Your task to perform on an android device: turn off priority inbox in the gmail app Image 0: 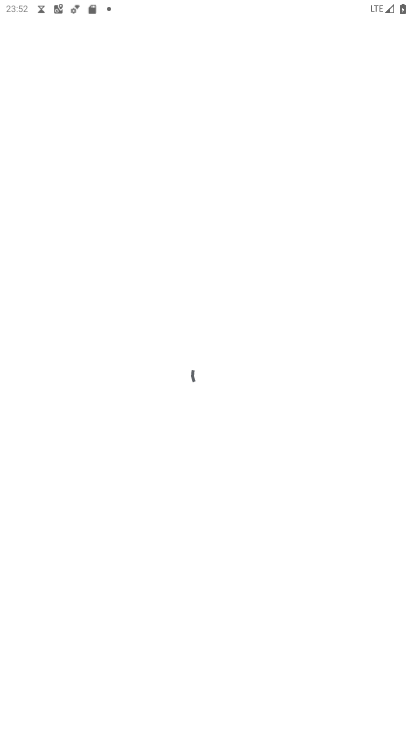
Step 0: press home button
Your task to perform on an android device: turn off priority inbox in the gmail app Image 1: 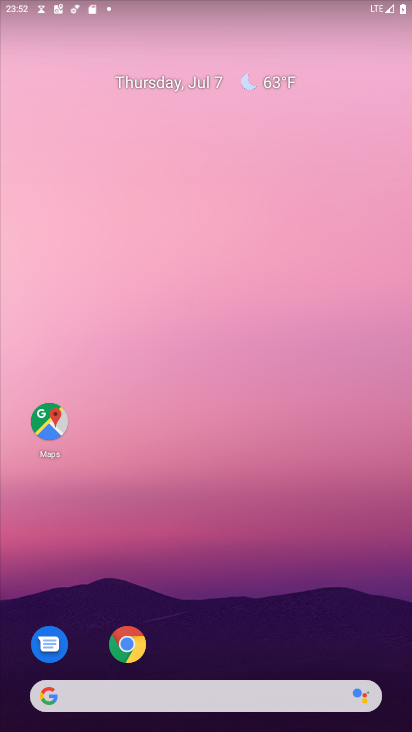
Step 1: drag from (258, 721) to (226, 171)
Your task to perform on an android device: turn off priority inbox in the gmail app Image 2: 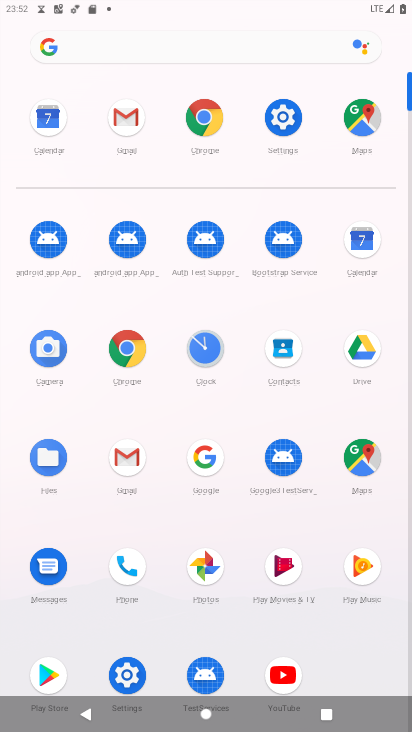
Step 2: click (127, 455)
Your task to perform on an android device: turn off priority inbox in the gmail app Image 3: 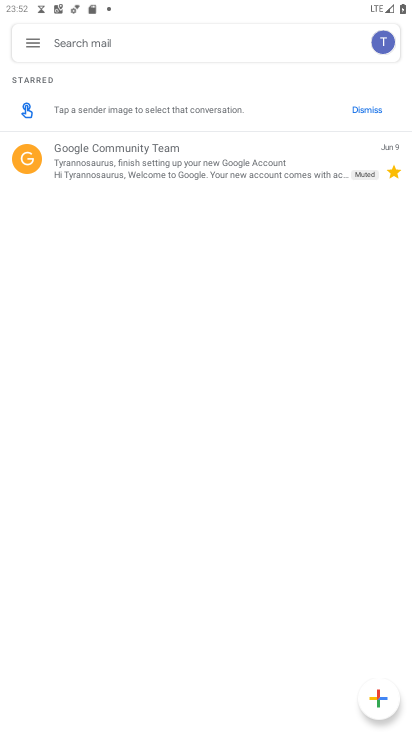
Step 3: click (27, 39)
Your task to perform on an android device: turn off priority inbox in the gmail app Image 4: 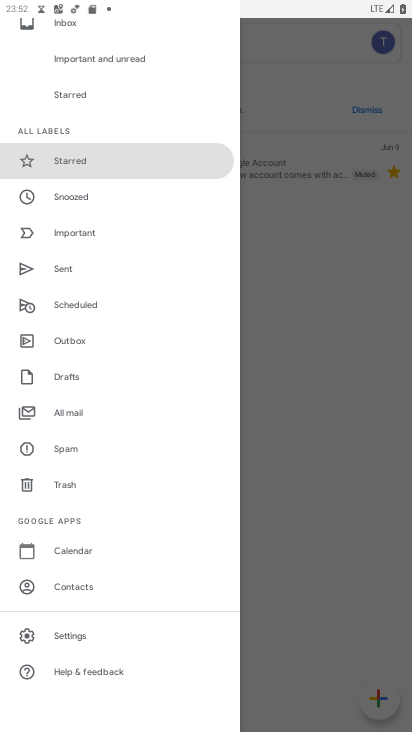
Step 4: click (75, 632)
Your task to perform on an android device: turn off priority inbox in the gmail app Image 5: 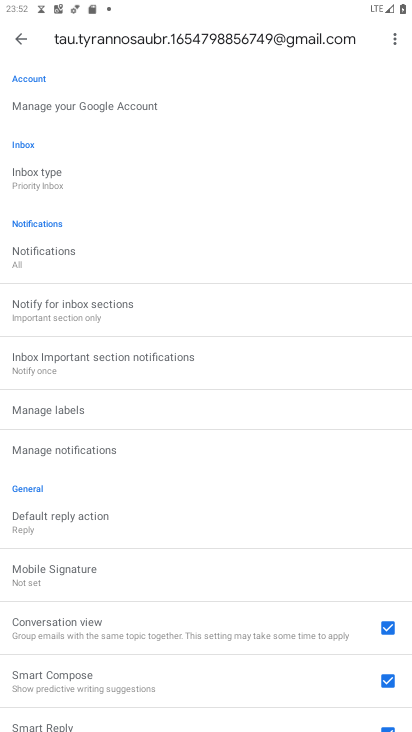
Step 5: click (47, 176)
Your task to perform on an android device: turn off priority inbox in the gmail app Image 6: 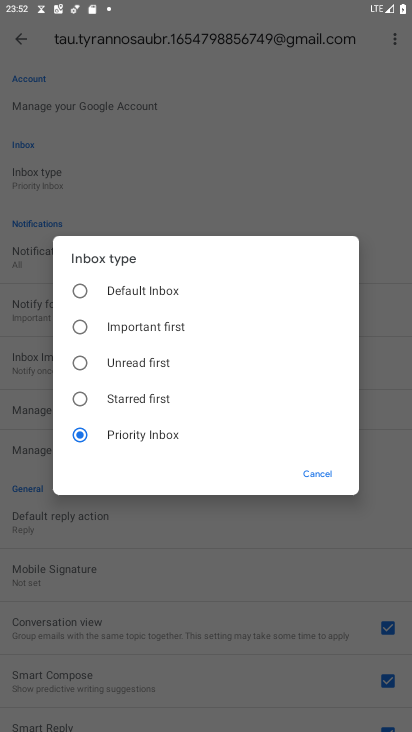
Step 6: click (79, 290)
Your task to perform on an android device: turn off priority inbox in the gmail app Image 7: 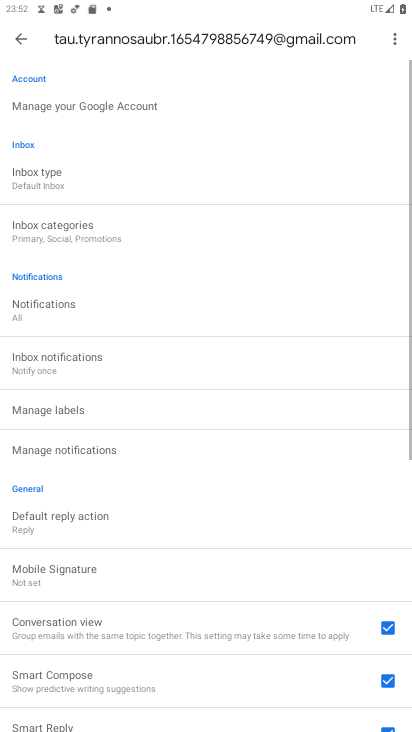
Step 7: task complete